Your task to perform on an android device: Open settings on Google Maps Image 0: 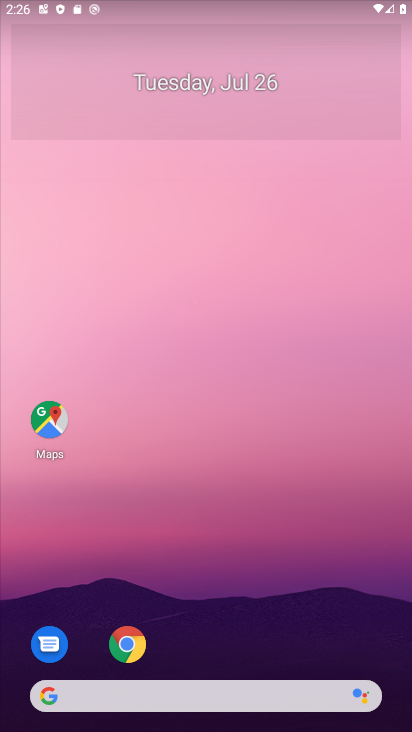
Step 0: press home button
Your task to perform on an android device: Open settings on Google Maps Image 1: 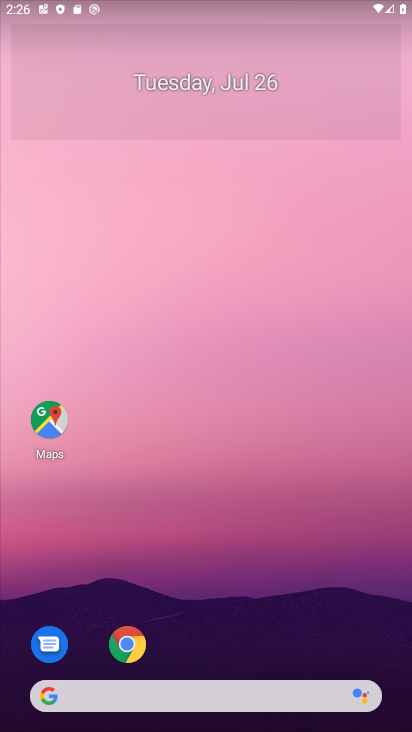
Step 1: click (44, 428)
Your task to perform on an android device: Open settings on Google Maps Image 2: 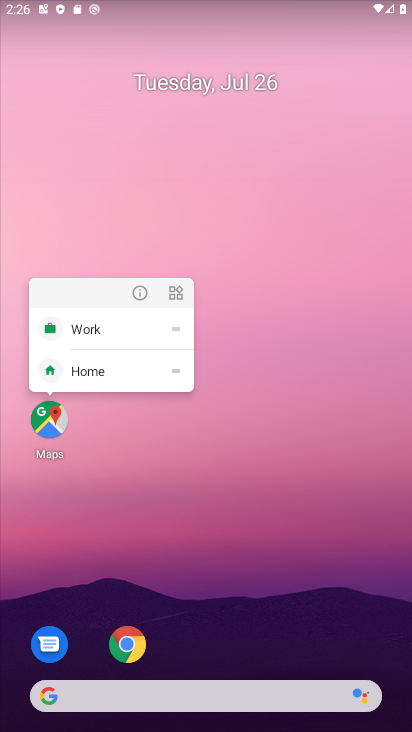
Step 2: click (50, 433)
Your task to perform on an android device: Open settings on Google Maps Image 3: 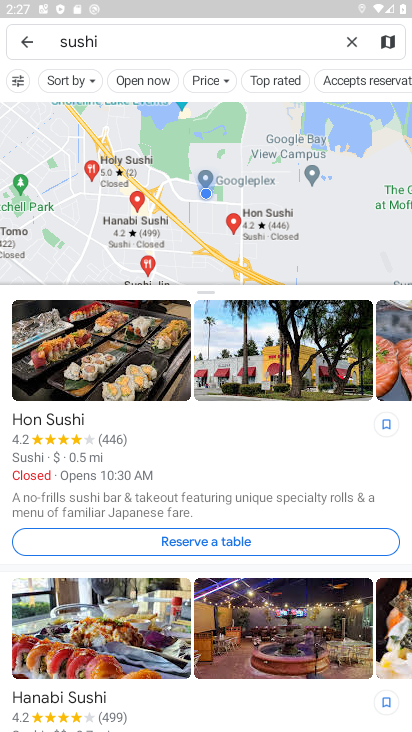
Step 3: click (27, 42)
Your task to perform on an android device: Open settings on Google Maps Image 4: 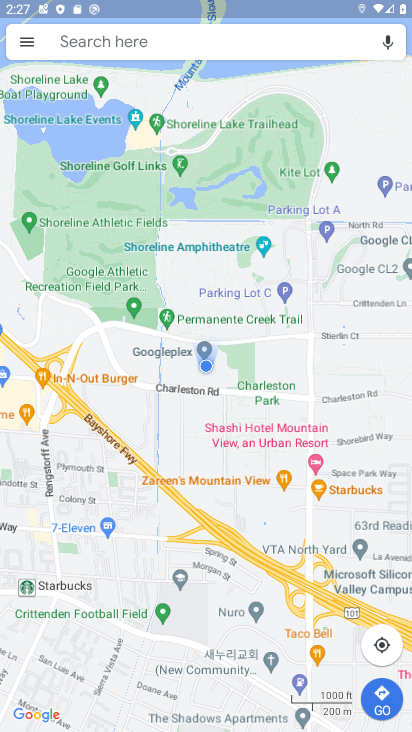
Step 4: click (32, 43)
Your task to perform on an android device: Open settings on Google Maps Image 5: 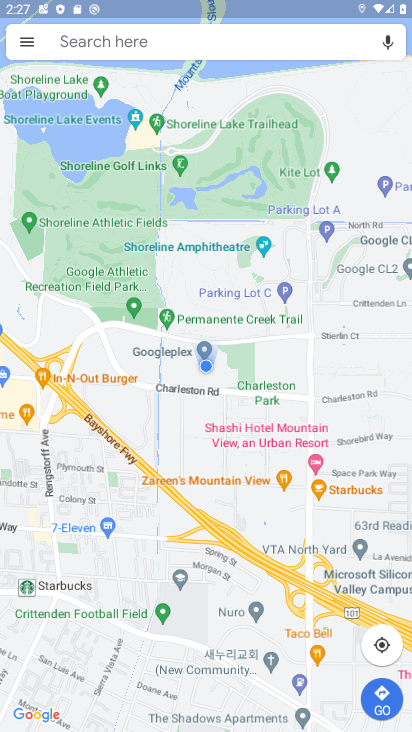
Step 5: click (20, 40)
Your task to perform on an android device: Open settings on Google Maps Image 6: 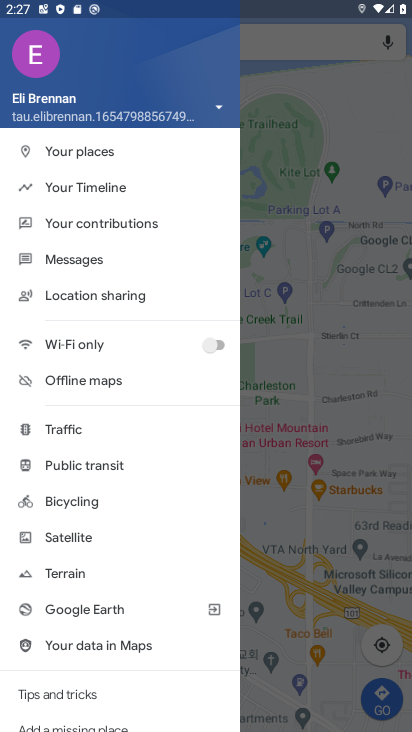
Step 6: drag from (113, 673) to (111, 242)
Your task to perform on an android device: Open settings on Google Maps Image 7: 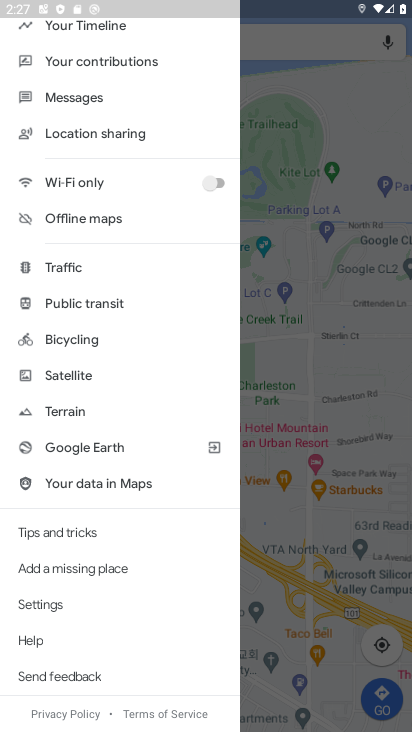
Step 7: click (57, 601)
Your task to perform on an android device: Open settings on Google Maps Image 8: 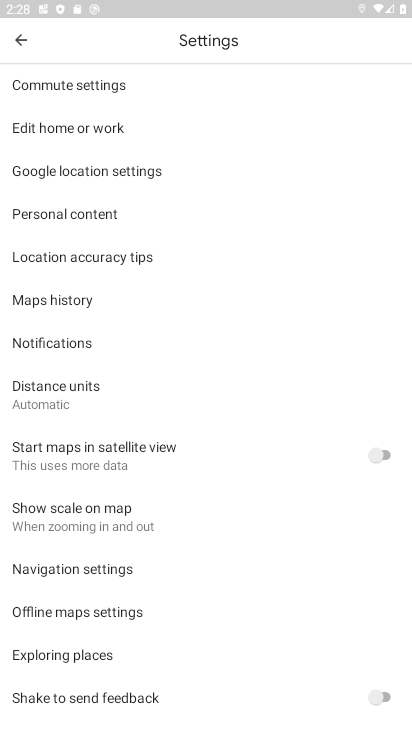
Step 8: task complete